Your task to perform on an android device: Go to Maps Image 0: 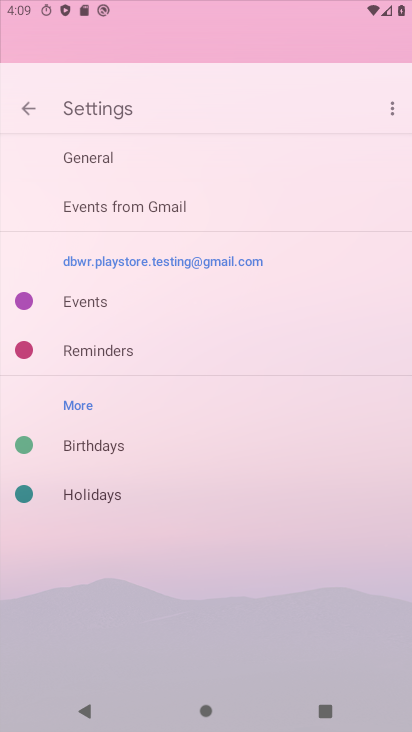
Step 0: drag from (229, 683) to (233, 563)
Your task to perform on an android device: Go to Maps Image 1: 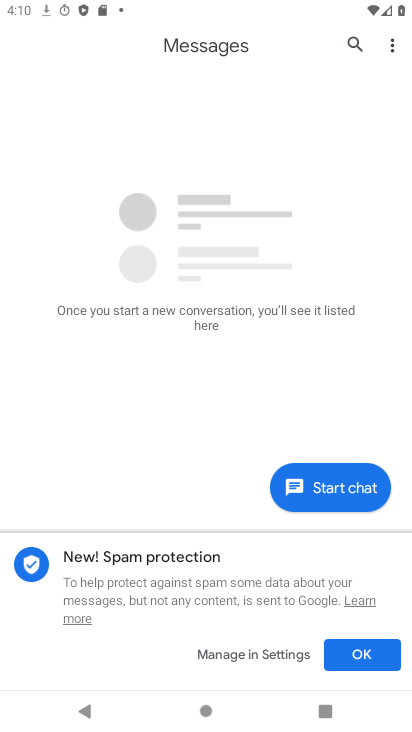
Step 1: press home button
Your task to perform on an android device: Go to Maps Image 2: 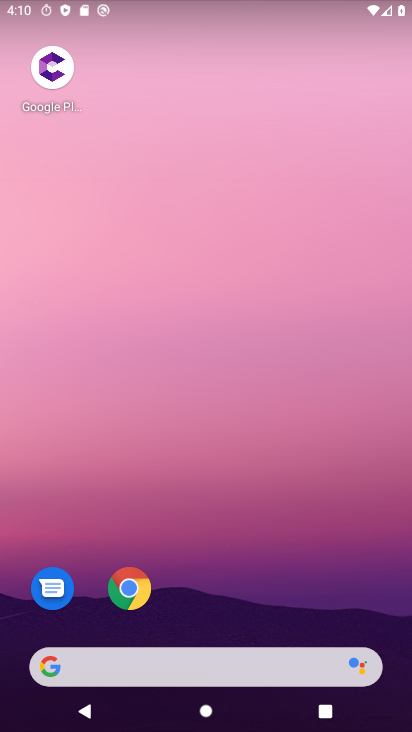
Step 2: drag from (21, 372) to (356, 459)
Your task to perform on an android device: Go to Maps Image 3: 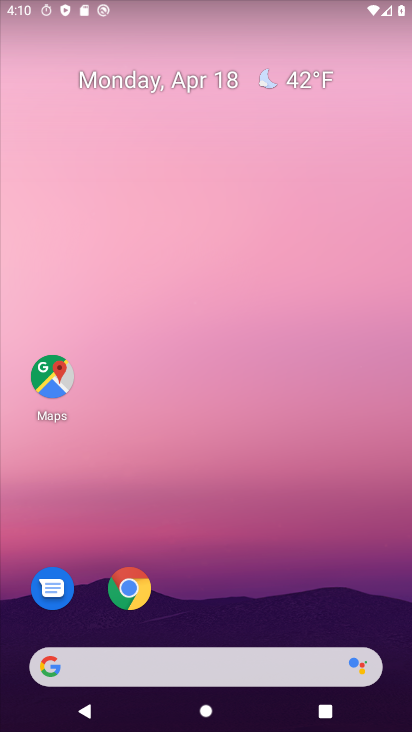
Step 3: click (57, 366)
Your task to perform on an android device: Go to Maps Image 4: 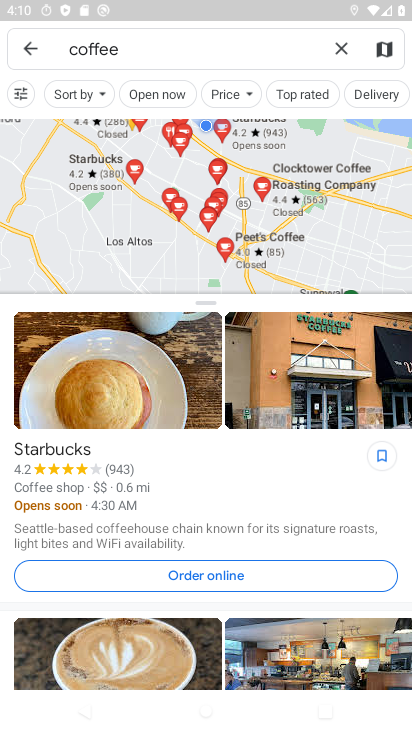
Step 4: task complete